Your task to perform on an android device: uninstall "Cash App" Image 0: 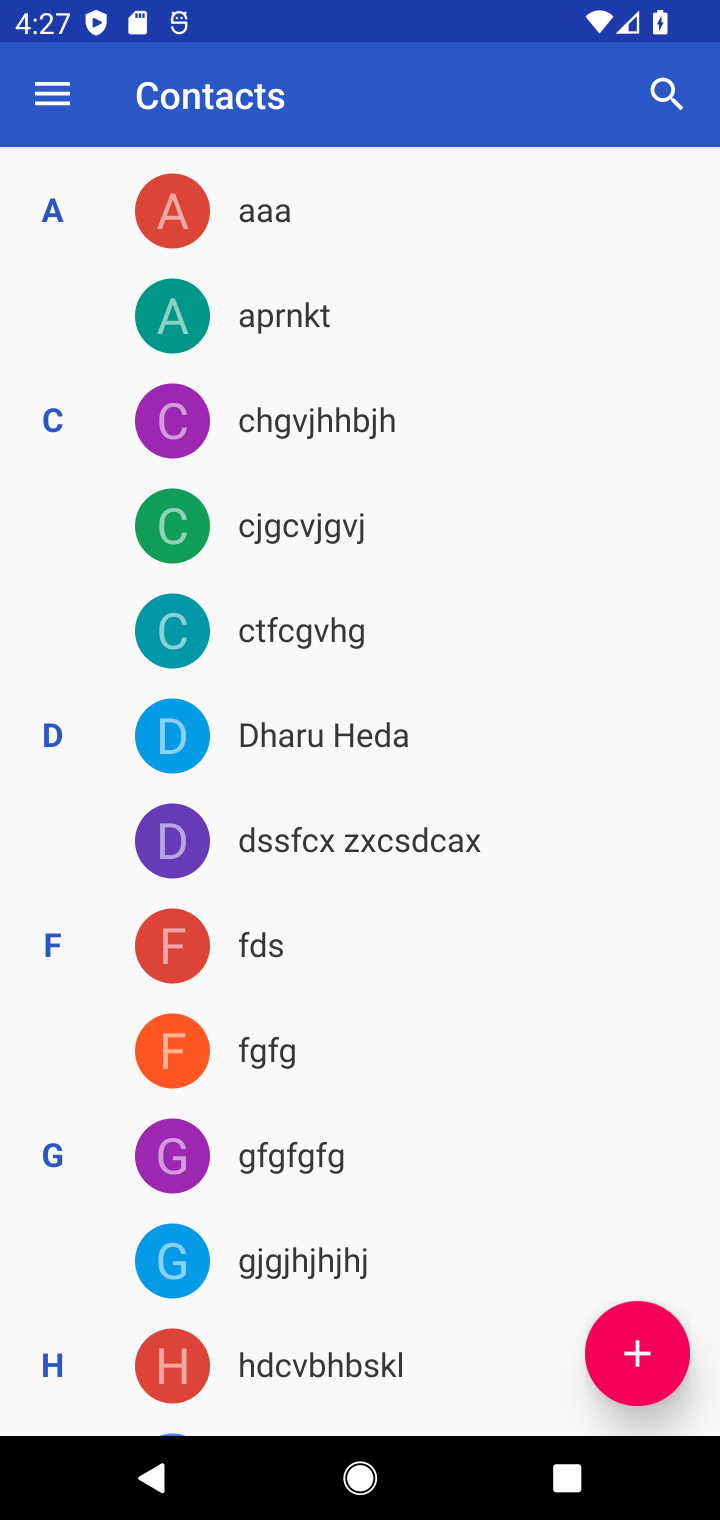
Step 0: press home button
Your task to perform on an android device: uninstall "Cash App" Image 1: 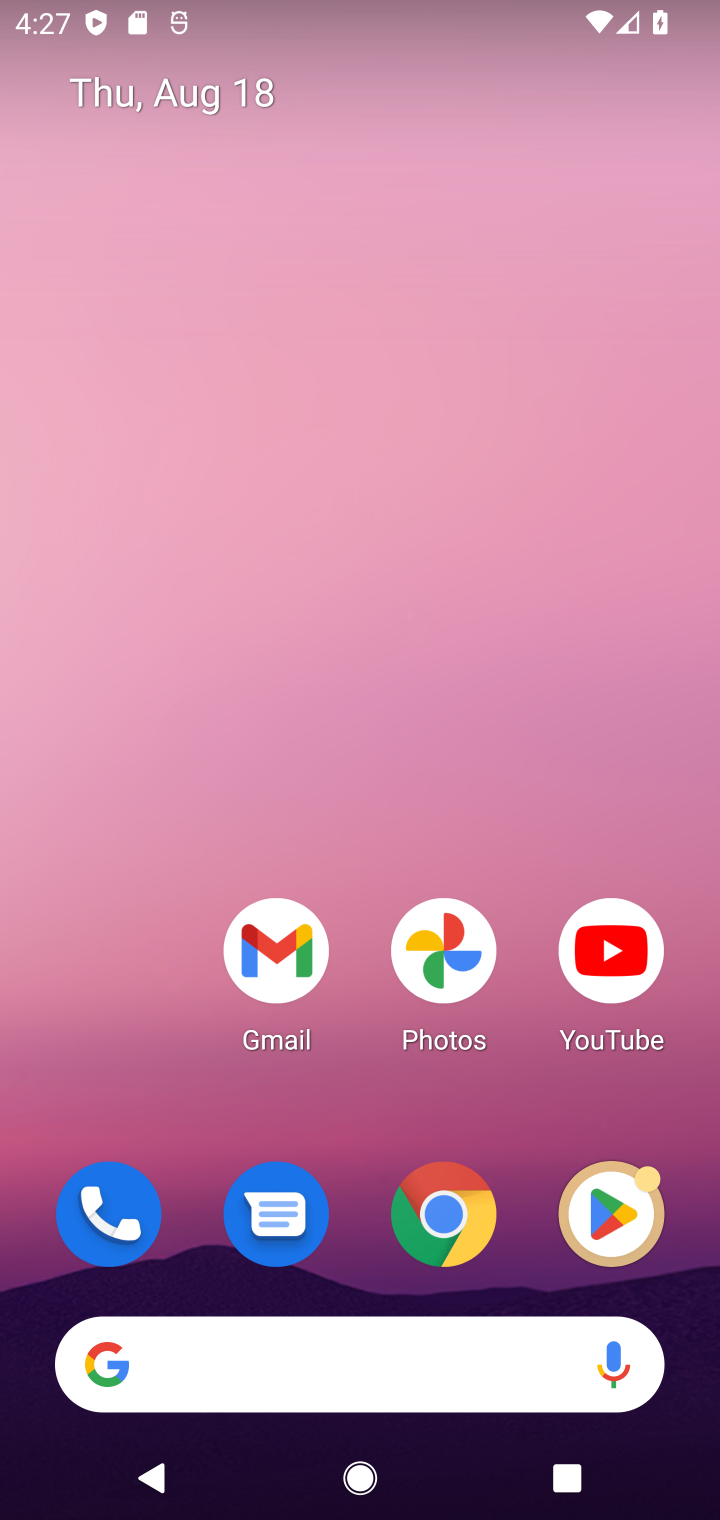
Step 1: drag from (275, 1177) to (352, 191)
Your task to perform on an android device: uninstall "Cash App" Image 2: 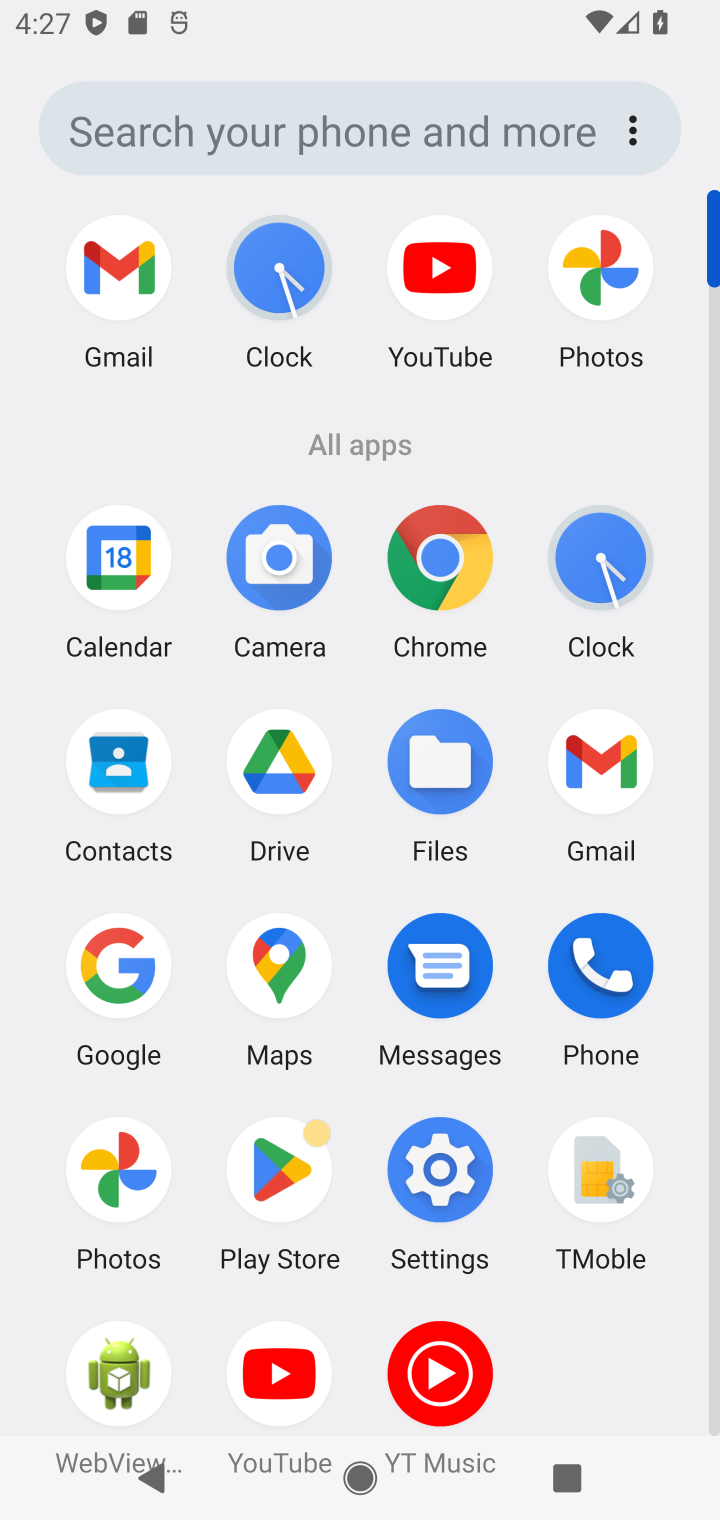
Step 2: click (271, 1172)
Your task to perform on an android device: uninstall "Cash App" Image 3: 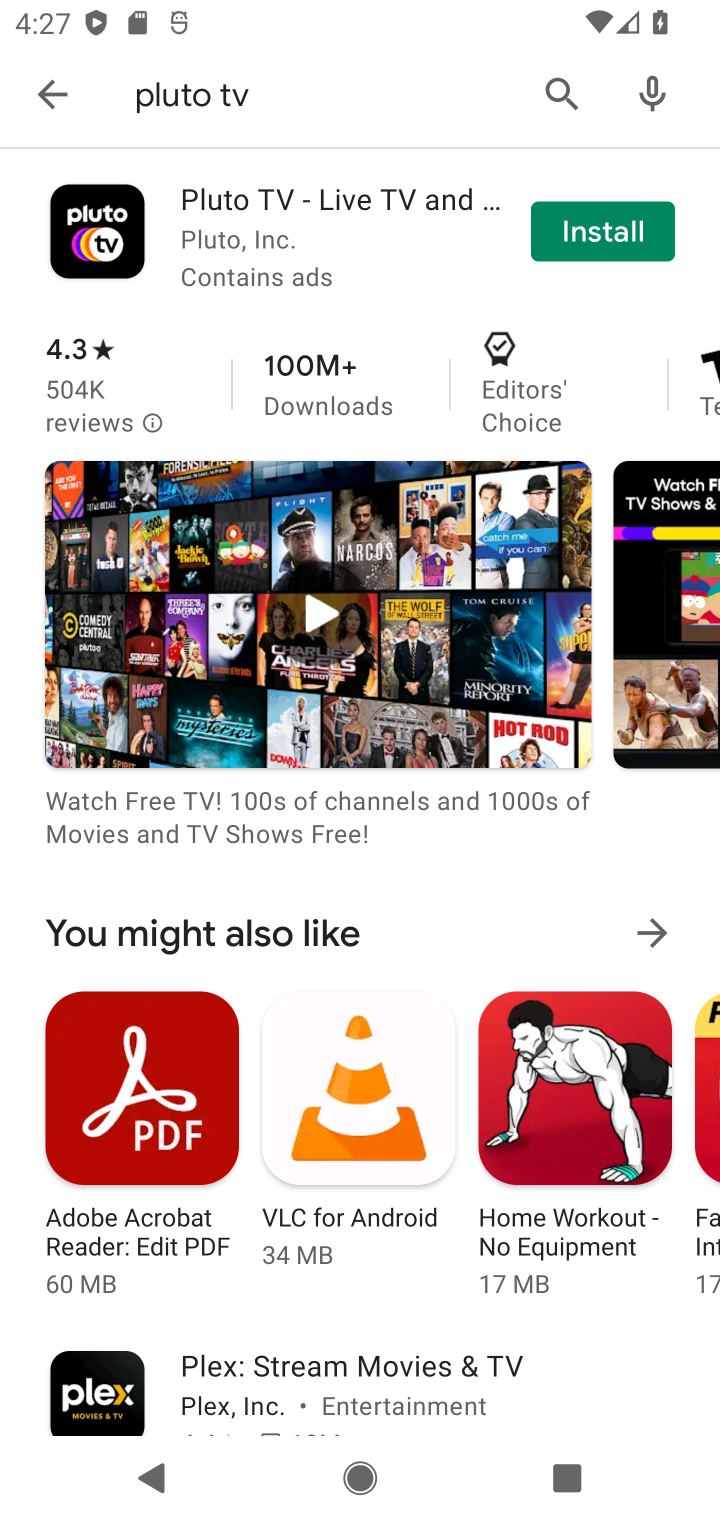
Step 3: click (268, 88)
Your task to perform on an android device: uninstall "Cash App" Image 4: 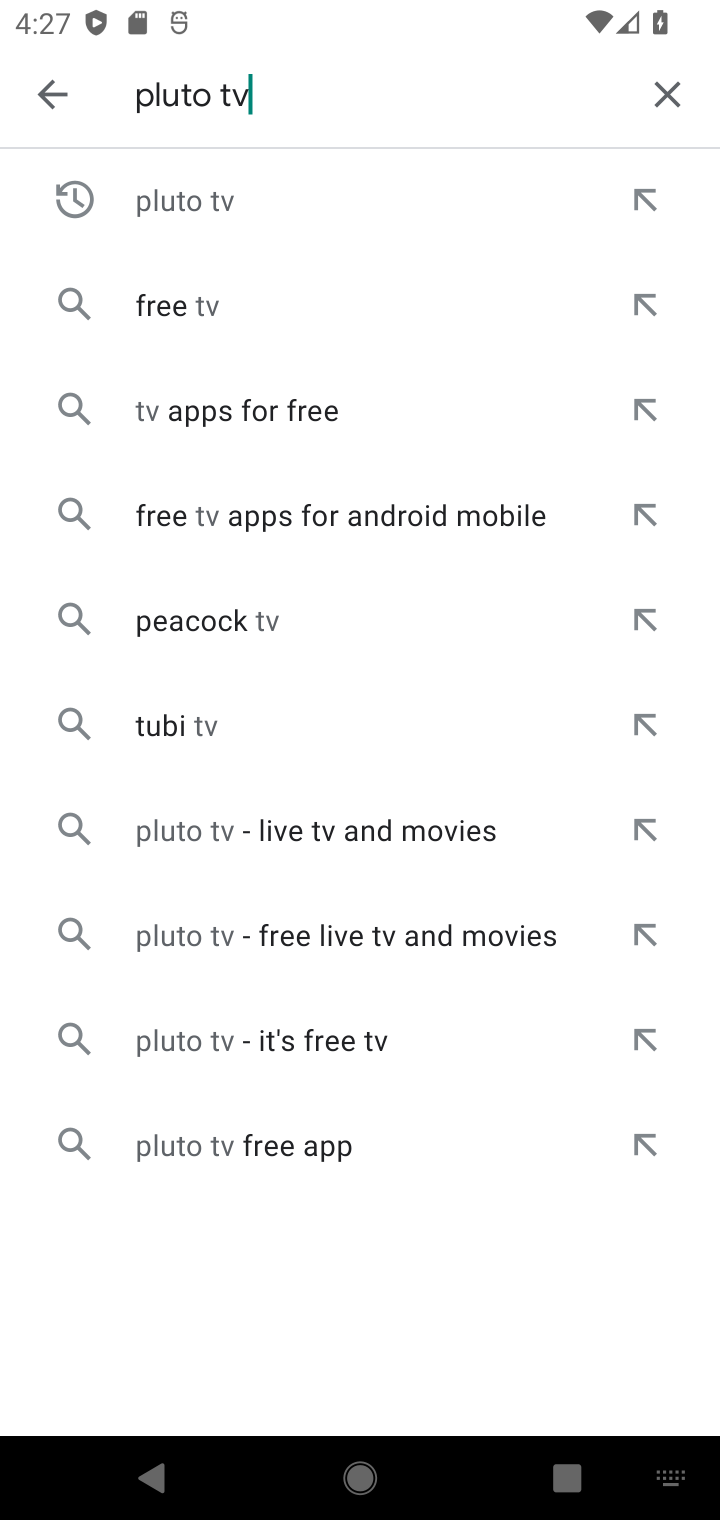
Step 4: click (654, 80)
Your task to perform on an android device: uninstall "Cash App" Image 5: 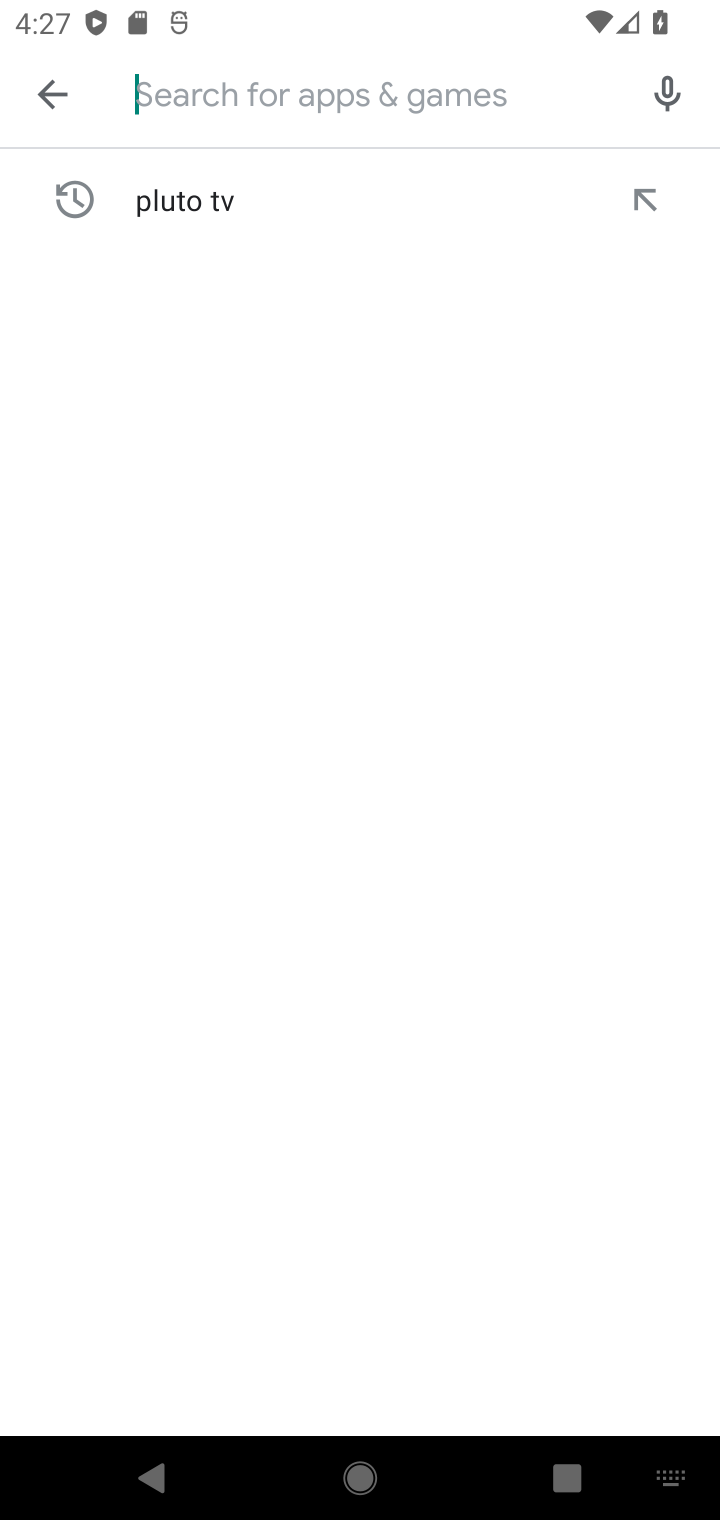
Step 5: type "Cash App"
Your task to perform on an android device: uninstall "Cash App" Image 6: 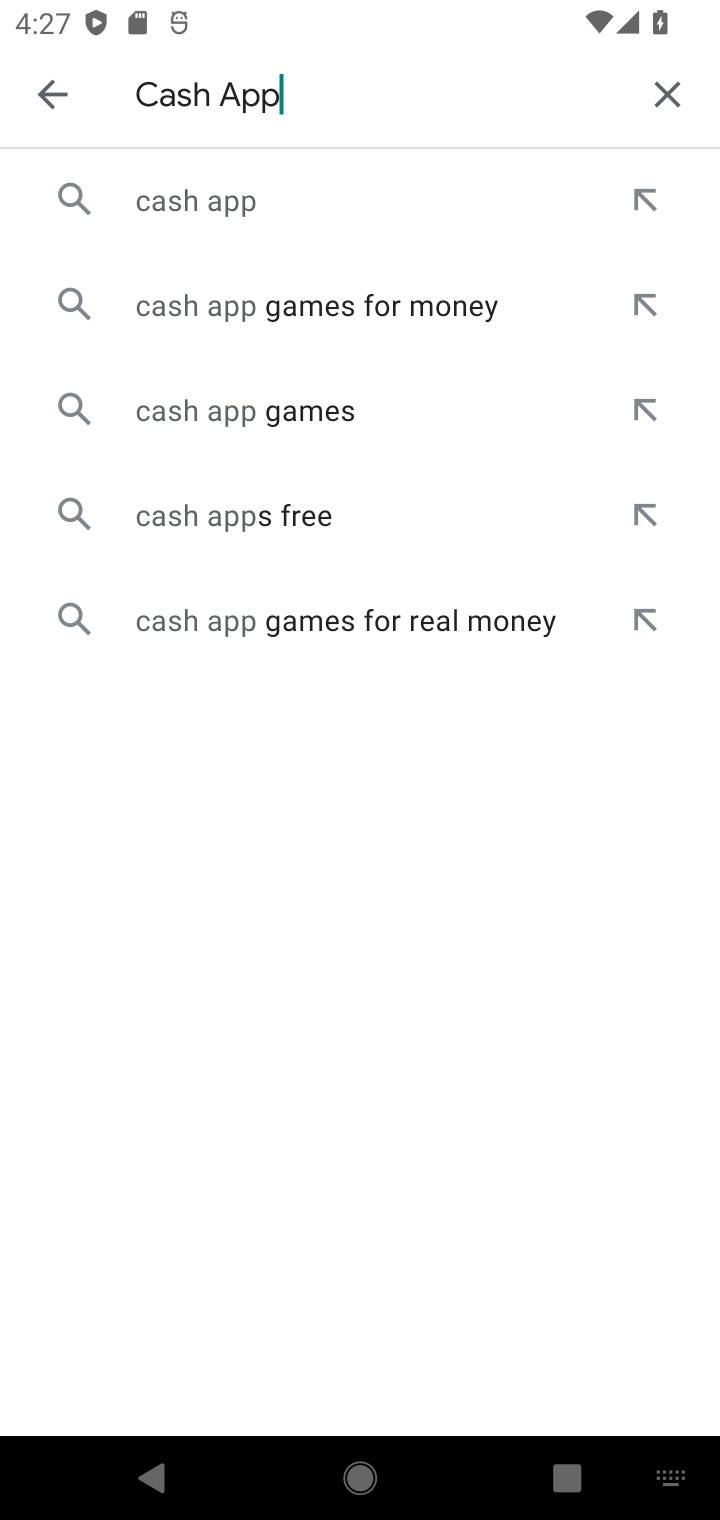
Step 6: click (334, 186)
Your task to perform on an android device: uninstall "Cash App" Image 7: 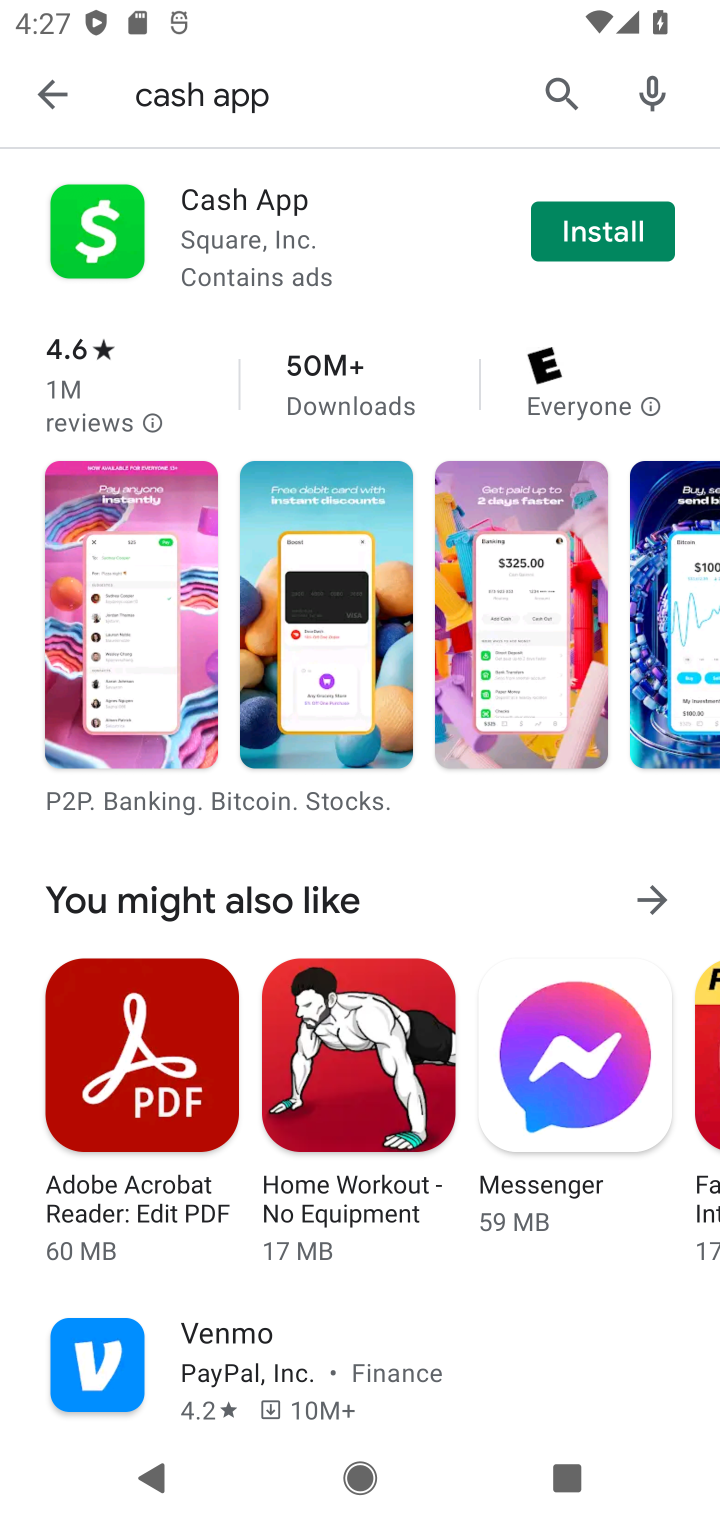
Step 7: task complete